Your task to perform on an android device: turn on notifications settings in the gmail app Image 0: 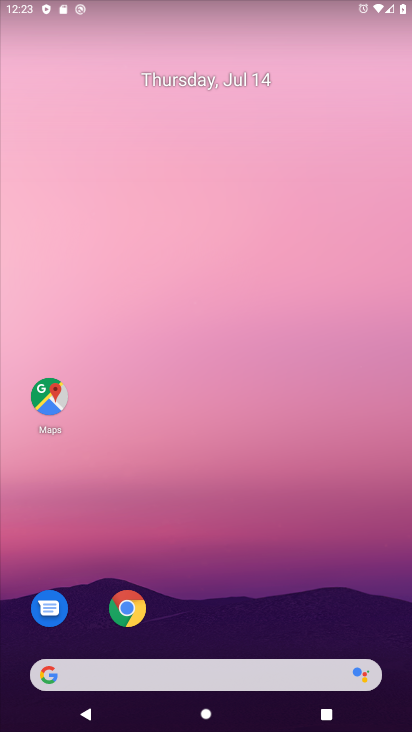
Step 0: drag from (199, 670) to (264, 234)
Your task to perform on an android device: turn on notifications settings in the gmail app Image 1: 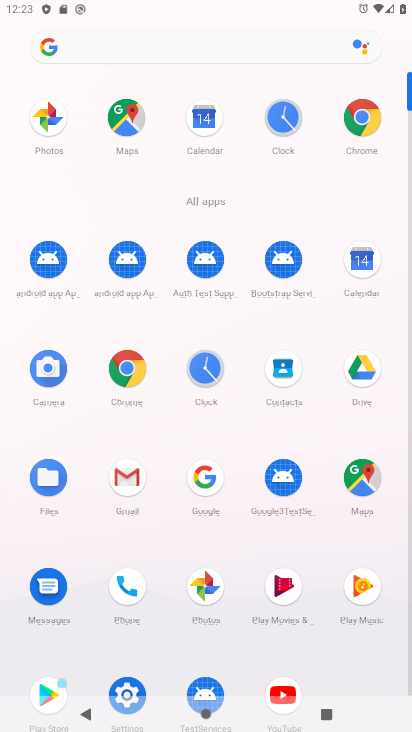
Step 1: click (127, 474)
Your task to perform on an android device: turn on notifications settings in the gmail app Image 2: 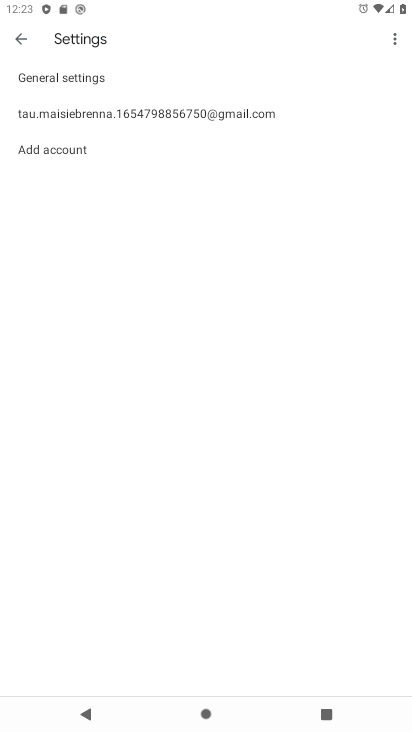
Step 2: click (213, 114)
Your task to perform on an android device: turn on notifications settings in the gmail app Image 3: 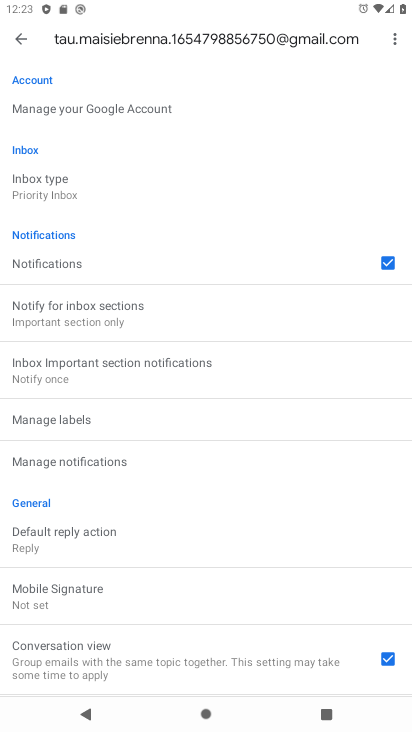
Step 3: click (47, 459)
Your task to perform on an android device: turn on notifications settings in the gmail app Image 4: 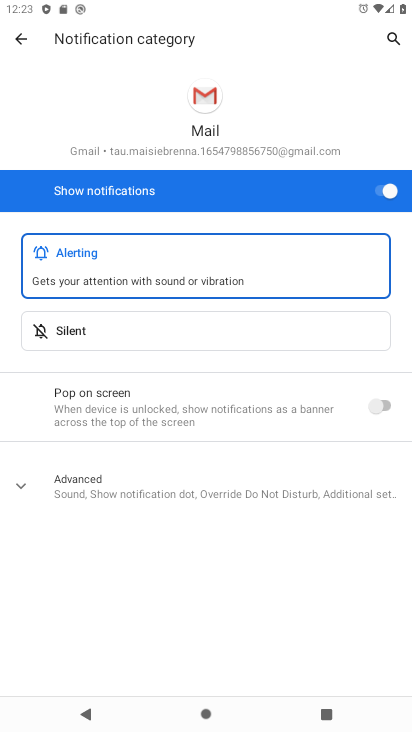
Step 4: task complete